Your task to perform on an android device: change the clock display to show seconds Image 0: 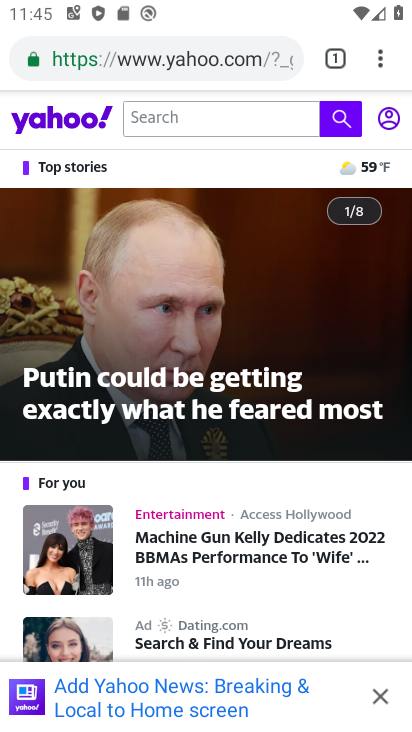
Step 0: press home button
Your task to perform on an android device: change the clock display to show seconds Image 1: 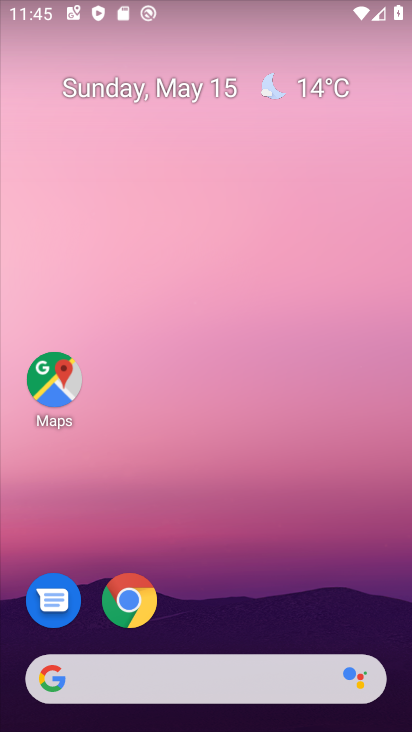
Step 1: drag from (385, 607) to (308, 37)
Your task to perform on an android device: change the clock display to show seconds Image 2: 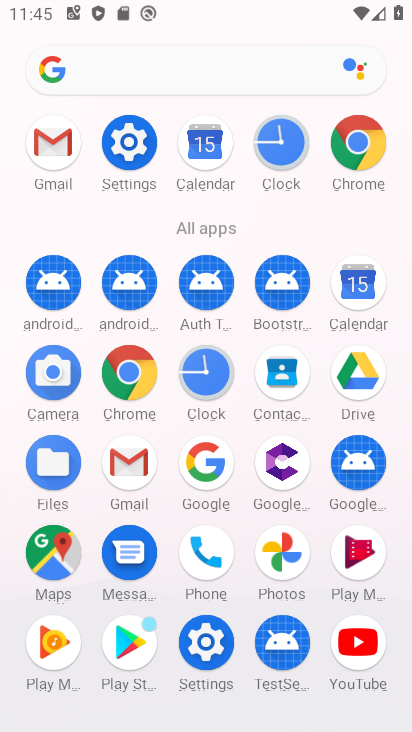
Step 2: click (204, 370)
Your task to perform on an android device: change the clock display to show seconds Image 3: 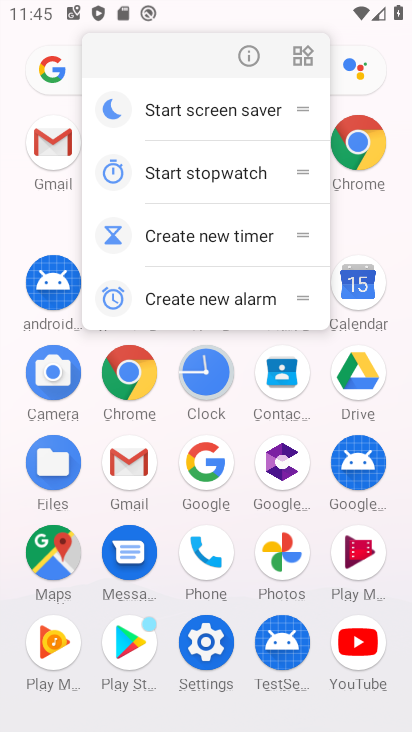
Step 3: click (207, 377)
Your task to perform on an android device: change the clock display to show seconds Image 4: 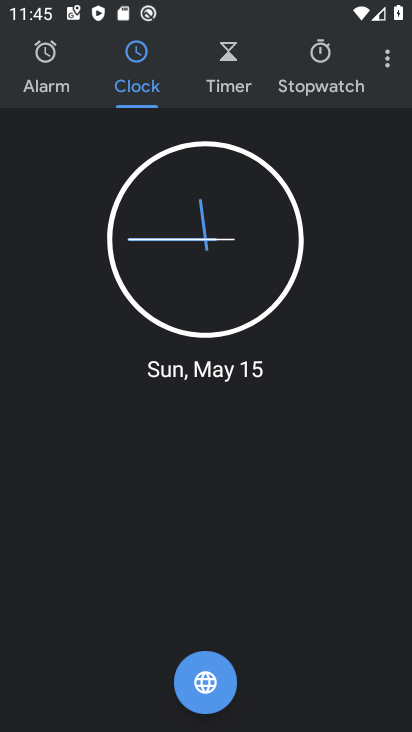
Step 4: click (385, 61)
Your task to perform on an android device: change the clock display to show seconds Image 5: 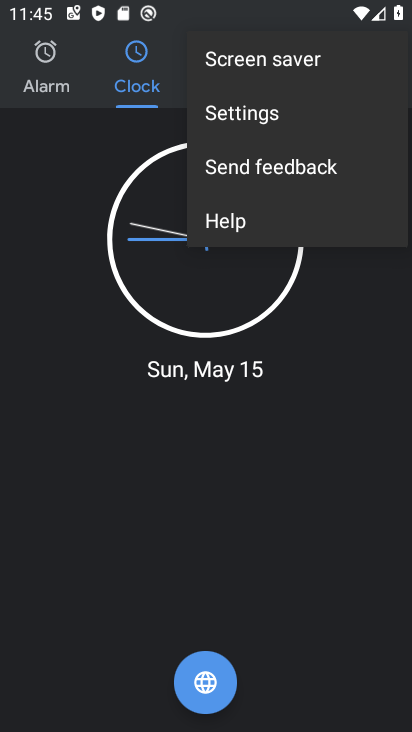
Step 5: click (263, 117)
Your task to perform on an android device: change the clock display to show seconds Image 6: 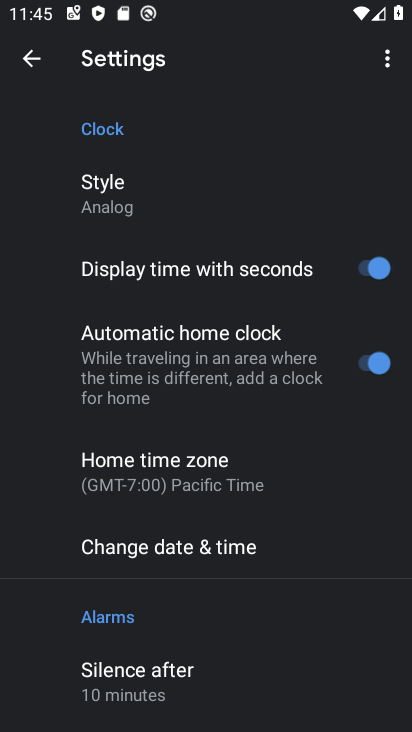
Step 6: task complete